Your task to perform on an android device: turn off translation in the chrome app Image 0: 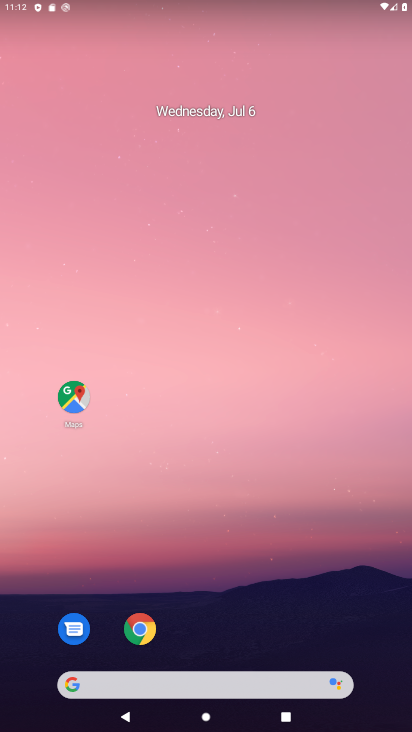
Step 0: click (143, 627)
Your task to perform on an android device: turn off translation in the chrome app Image 1: 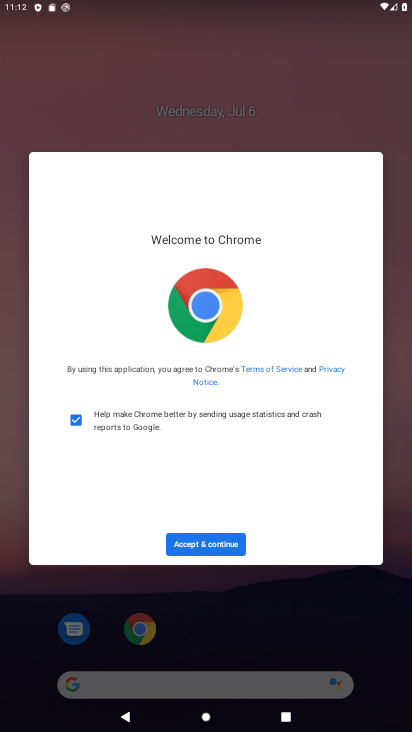
Step 1: click (209, 541)
Your task to perform on an android device: turn off translation in the chrome app Image 2: 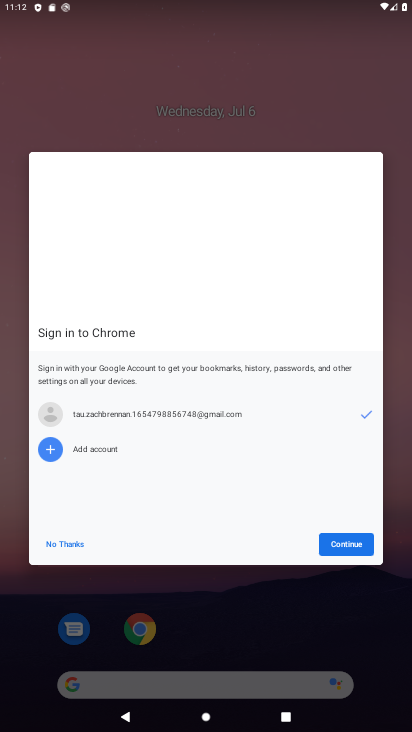
Step 2: click (343, 536)
Your task to perform on an android device: turn off translation in the chrome app Image 3: 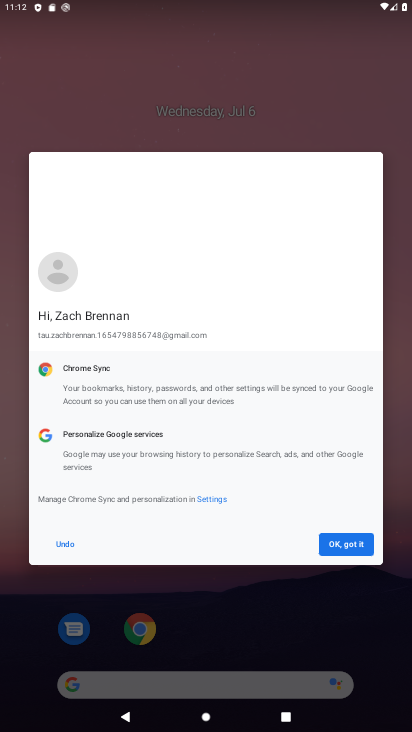
Step 3: click (343, 544)
Your task to perform on an android device: turn off translation in the chrome app Image 4: 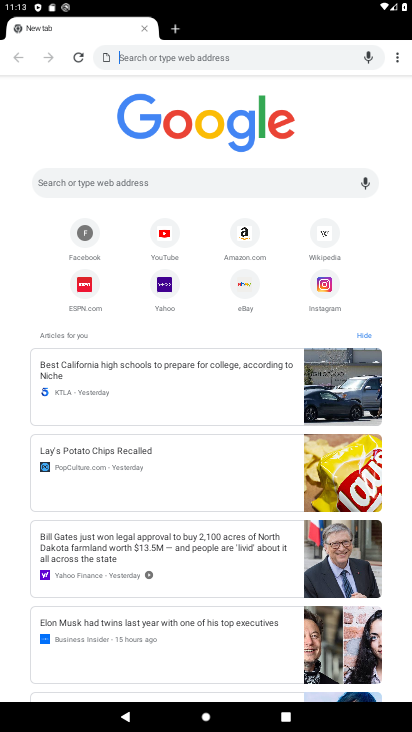
Step 4: click (397, 56)
Your task to perform on an android device: turn off translation in the chrome app Image 5: 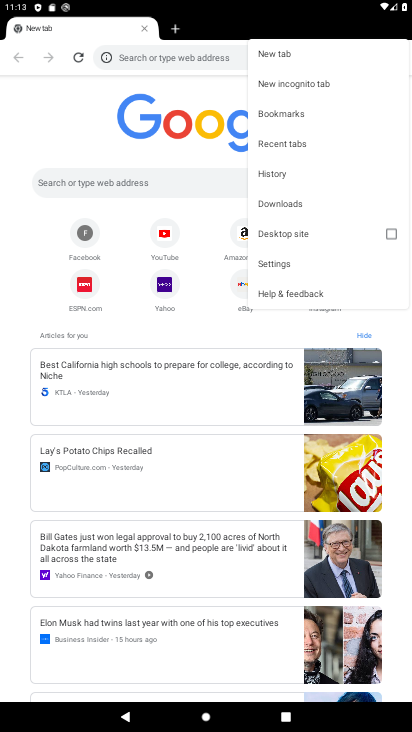
Step 5: click (283, 258)
Your task to perform on an android device: turn off translation in the chrome app Image 6: 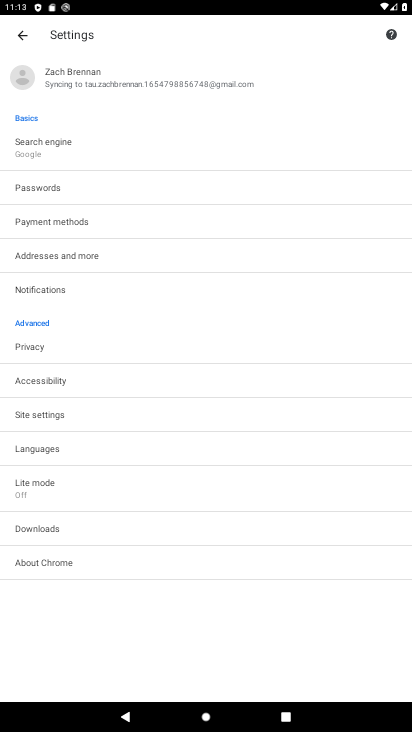
Step 6: click (36, 448)
Your task to perform on an android device: turn off translation in the chrome app Image 7: 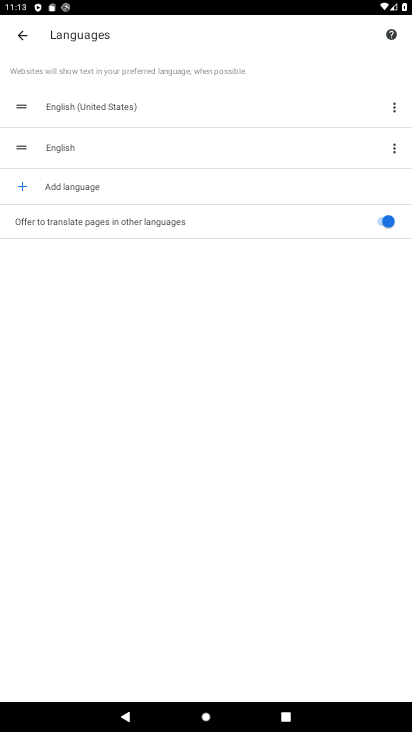
Step 7: click (385, 228)
Your task to perform on an android device: turn off translation in the chrome app Image 8: 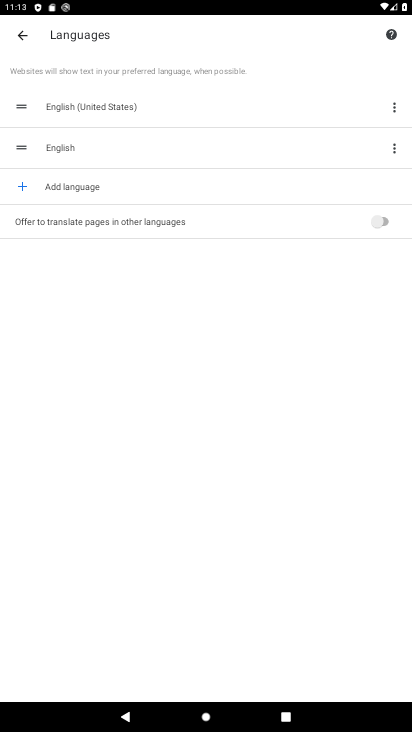
Step 8: task complete